Your task to perform on an android device: What's on my calendar today? Image 0: 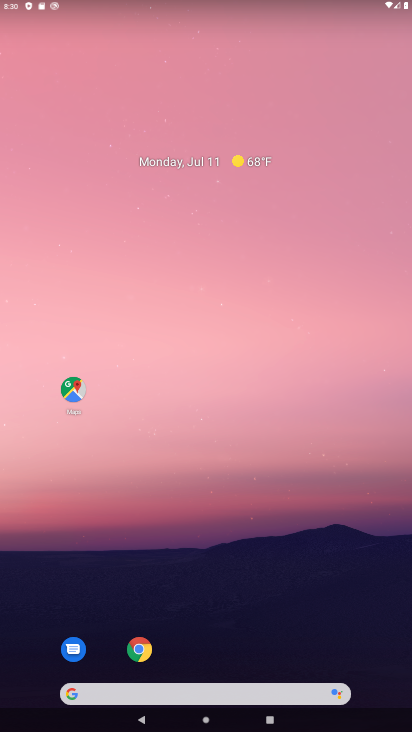
Step 0: drag from (271, 378) to (238, 122)
Your task to perform on an android device: What's on my calendar today? Image 1: 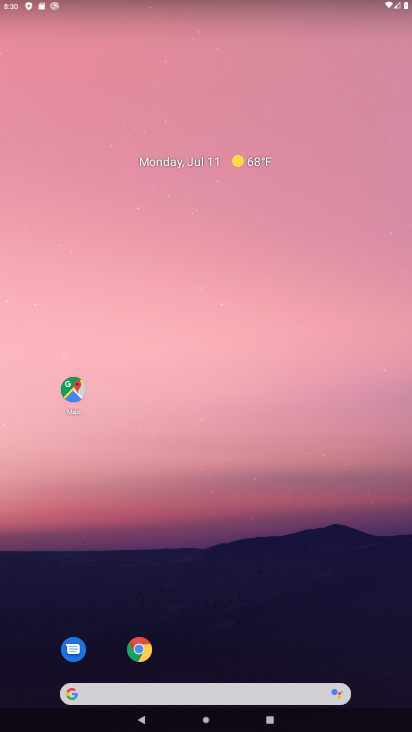
Step 1: drag from (266, 601) to (233, 103)
Your task to perform on an android device: What's on my calendar today? Image 2: 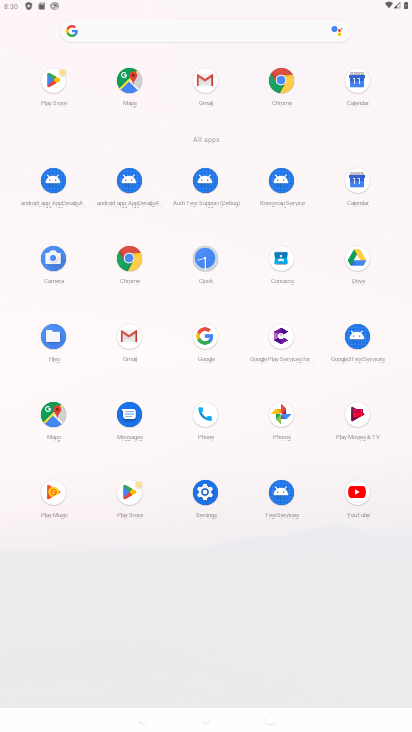
Step 2: click (355, 181)
Your task to perform on an android device: What's on my calendar today? Image 3: 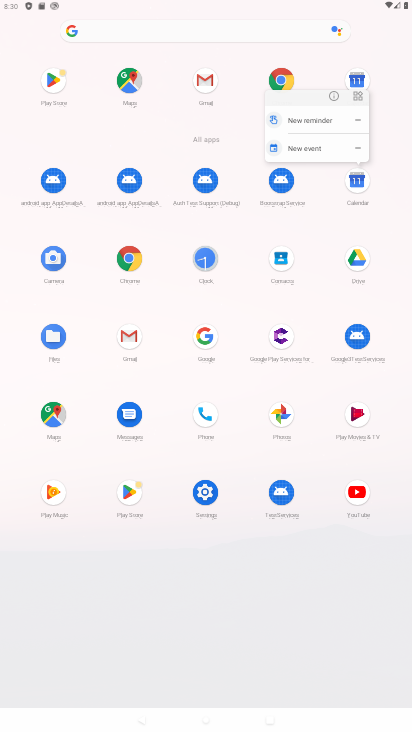
Step 3: click (356, 180)
Your task to perform on an android device: What's on my calendar today? Image 4: 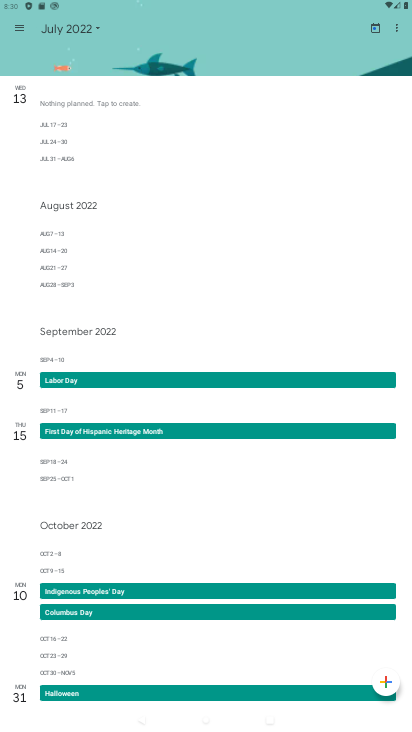
Step 4: drag from (223, 449) to (221, 144)
Your task to perform on an android device: What's on my calendar today? Image 5: 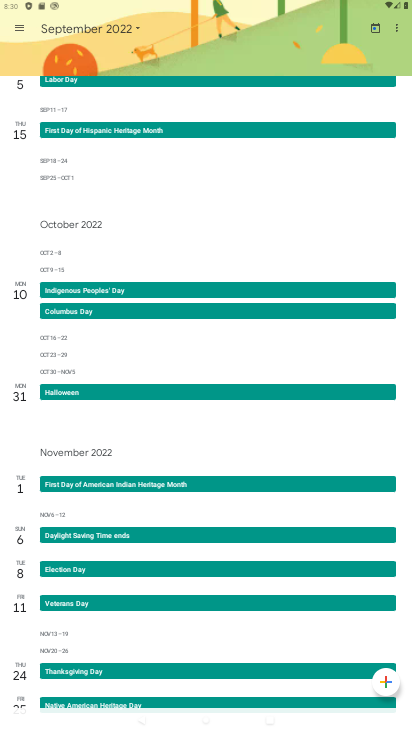
Step 5: drag from (214, 99) to (216, 461)
Your task to perform on an android device: What's on my calendar today? Image 6: 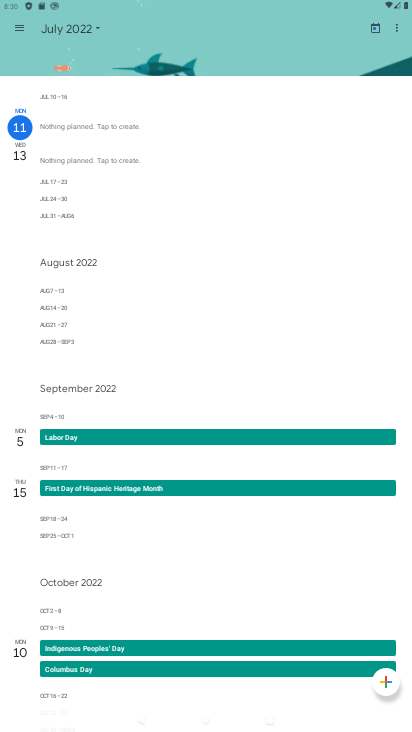
Step 6: drag from (97, 113) to (106, 394)
Your task to perform on an android device: What's on my calendar today? Image 7: 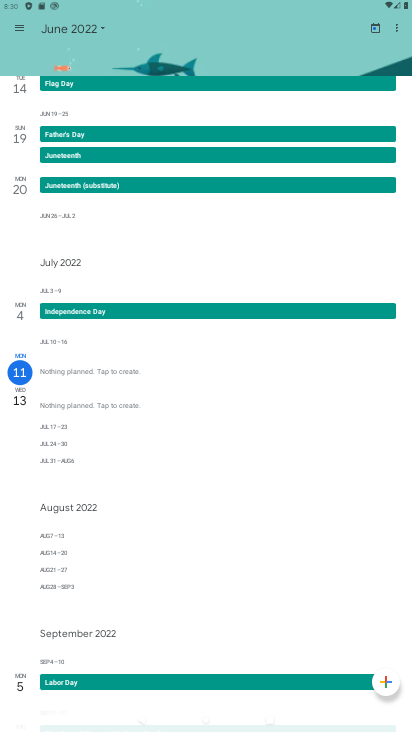
Step 7: drag from (63, 112) to (126, 473)
Your task to perform on an android device: What's on my calendar today? Image 8: 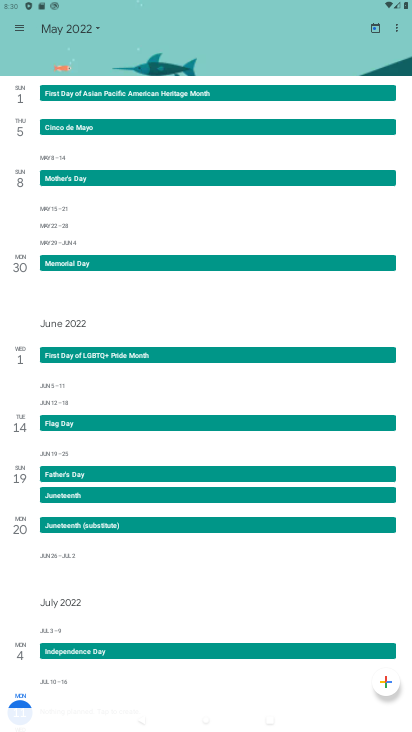
Step 8: drag from (132, 210) to (257, 573)
Your task to perform on an android device: What's on my calendar today? Image 9: 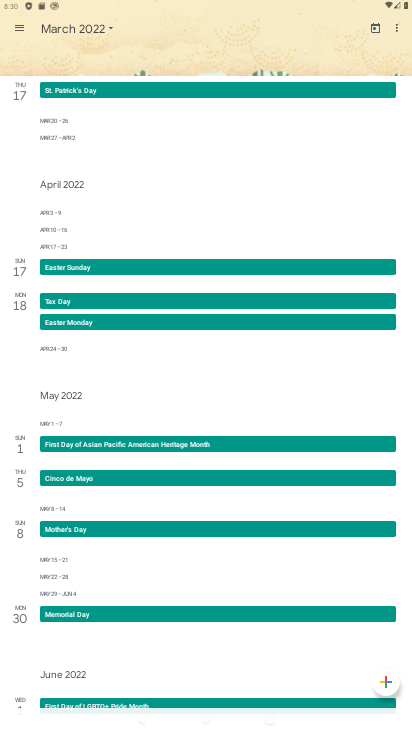
Step 9: drag from (180, 186) to (222, 561)
Your task to perform on an android device: What's on my calendar today? Image 10: 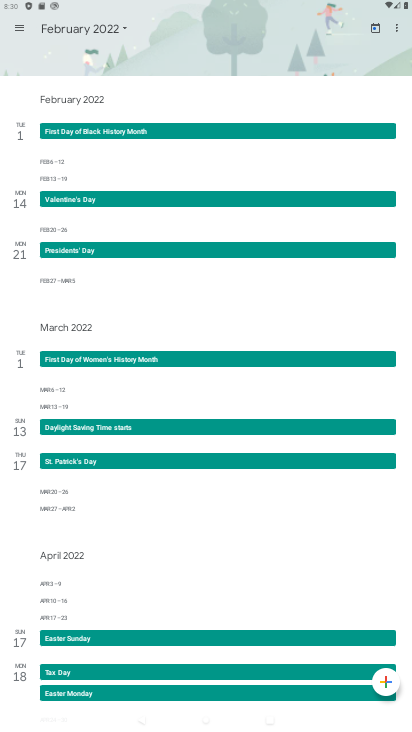
Step 10: drag from (138, 370) to (156, 519)
Your task to perform on an android device: What's on my calendar today? Image 11: 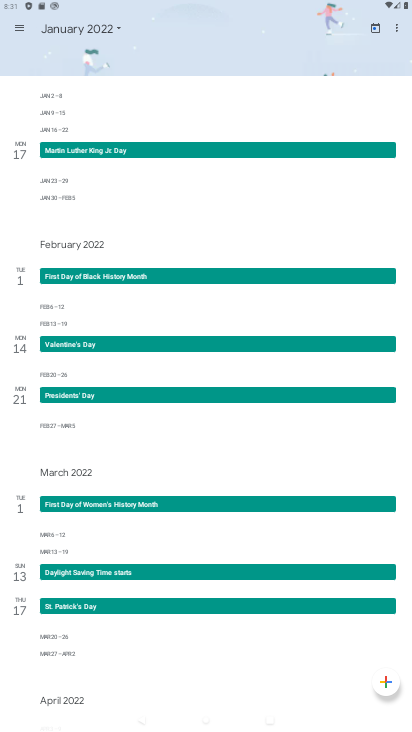
Step 11: drag from (143, 180) to (190, 530)
Your task to perform on an android device: What's on my calendar today? Image 12: 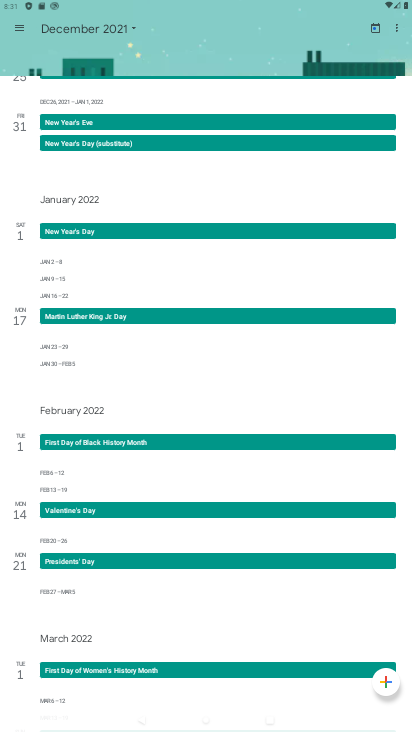
Step 12: drag from (142, 165) to (164, 609)
Your task to perform on an android device: What's on my calendar today? Image 13: 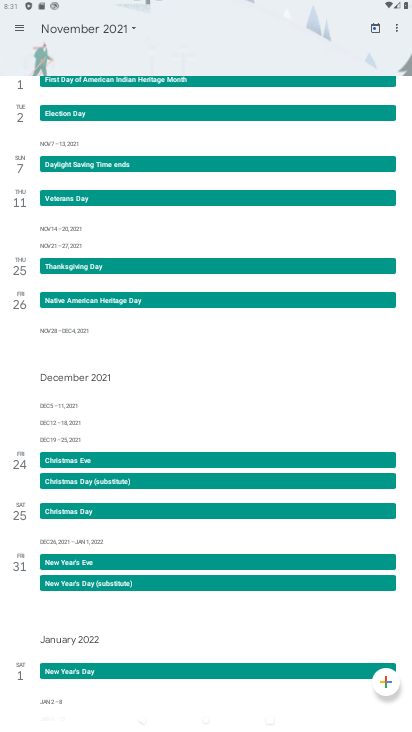
Step 13: drag from (44, 131) to (180, 589)
Your task to perform on an android device: What's on my calendar today? Image 14: 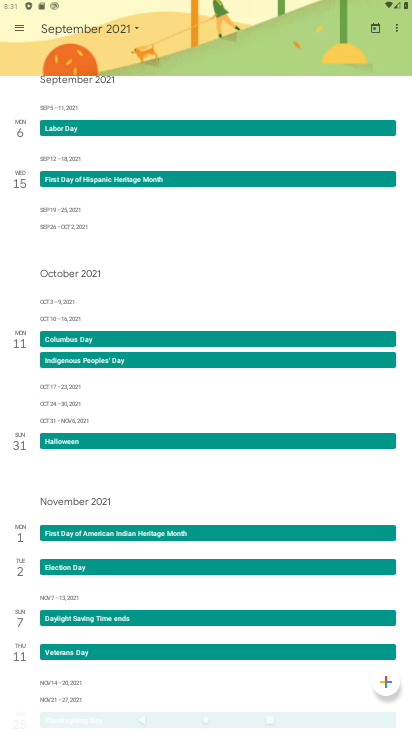
Step 14: drag from (144, 497) to (159, 24)
Your task to perform on an android device: What's on my calendar today? Image 15: 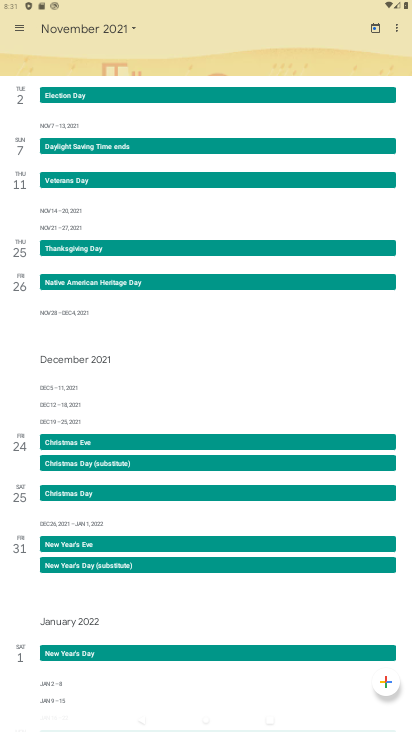
Step 15: drag from (196, 423) to (196, 167)
Your task to perform on an android device: What's on my calendar today? Image 16: 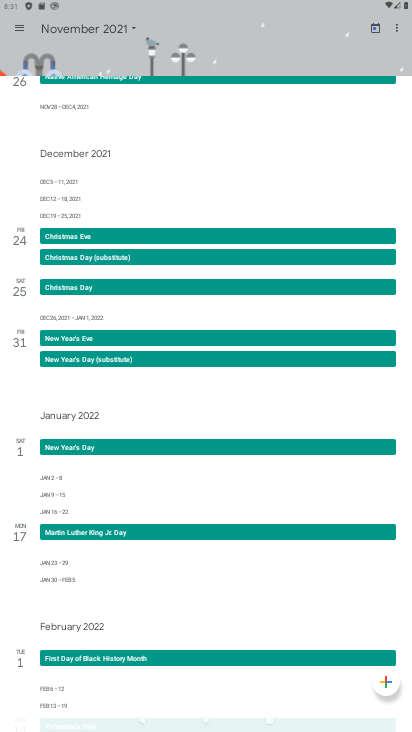
Step 16: drag from (160, 452) to (157, 123)
Your task to perform on an android device: What's on my calendar today? Image 17: 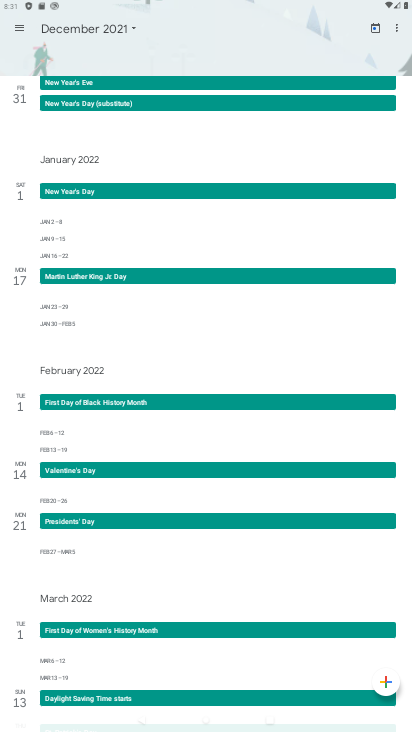
Step 17: drag from (138, 395) to (112, 53)
Your task to perform on an android device: What's on my calendar today? Image 18: 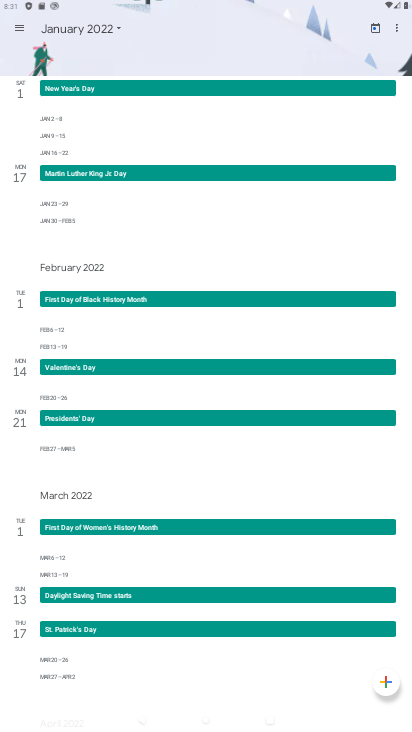
Step 18: drag from (127, 445) to (123, 86)
Your task to perform on an android device: What's on my calendar today? Image 19: 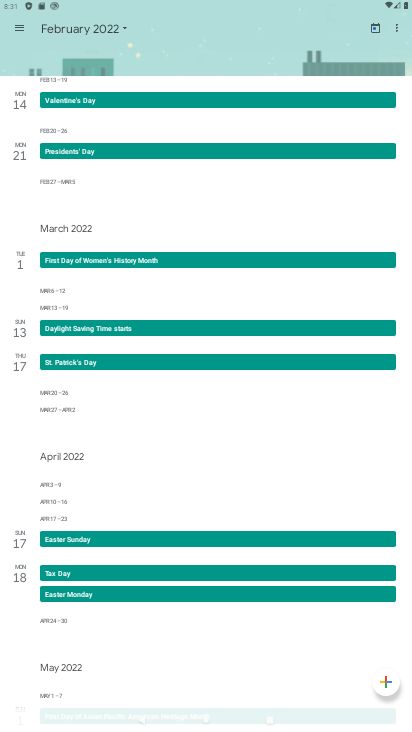
Step 19: drag from (188, 589) to (188, 178)
Your task to perform on an android device: What's on my calendar today? Image 20: 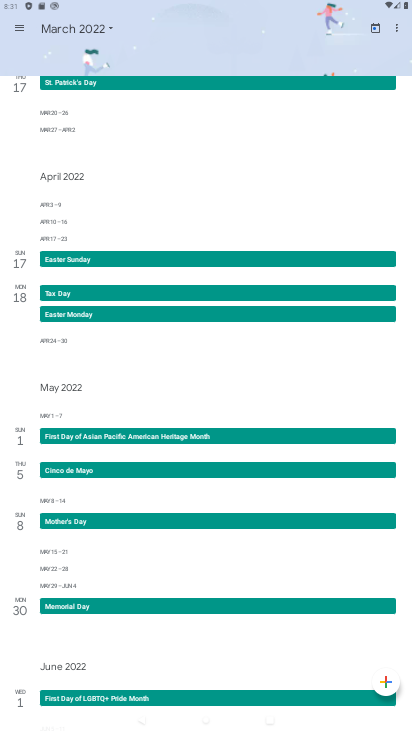
Step 20: drag from (226, 497) to (226, 128)
Your task to perform on an android device: What's on my calendar today? Image 21: 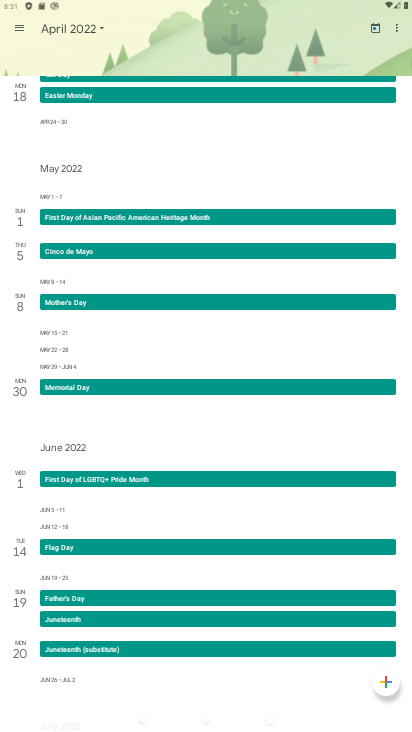
Step 21: drag from (242, 400) to (234, 204)
Your task to perform on an android device: What's on my calendar today? Image 22: 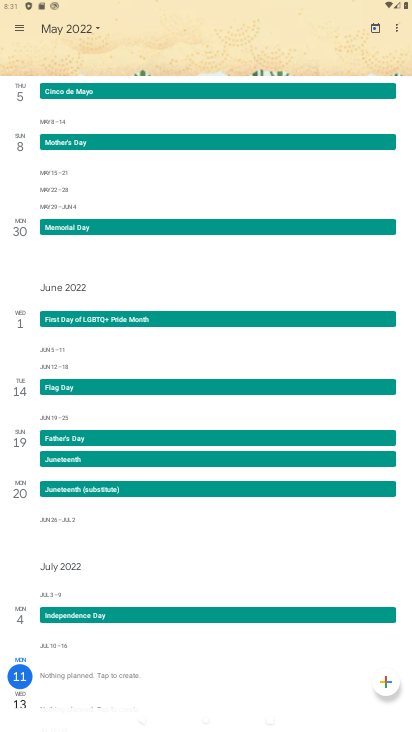
Step 22: drag from (261, 375) to (243, 160)
Your task to perform on an android device: What's on my calendar today? Image 23: 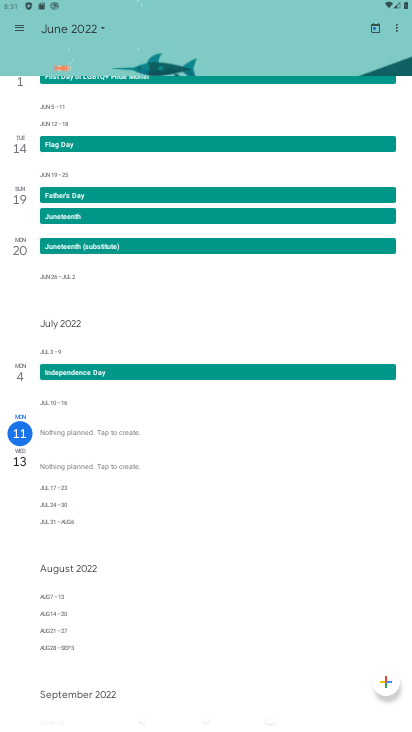
Step 23: drag from (209, 399) to (189, 223)
Your task to perform on an android device: What's on my calendar today? Image 24: 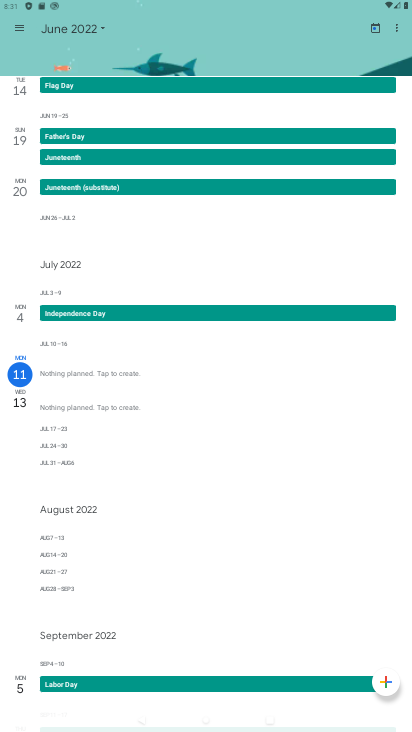
Step 24: drag from (161, 404) to (161, 124)
Your task to perform on an android device: What's on my calendar today? Image 25: 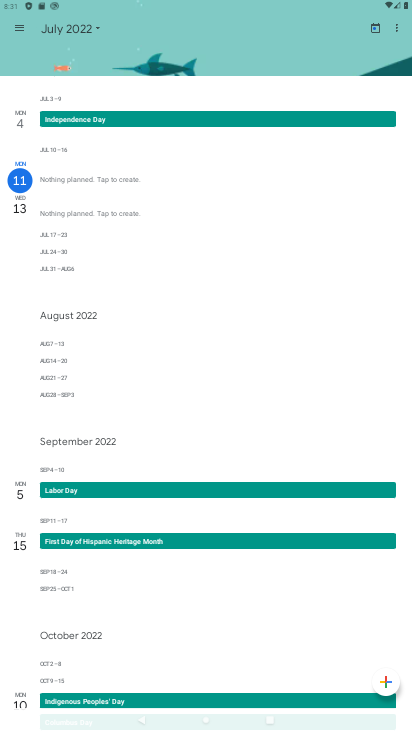
Step 25: click (97, 23)
Your task to perform on an android device: What's on my calendar today? Image 26: 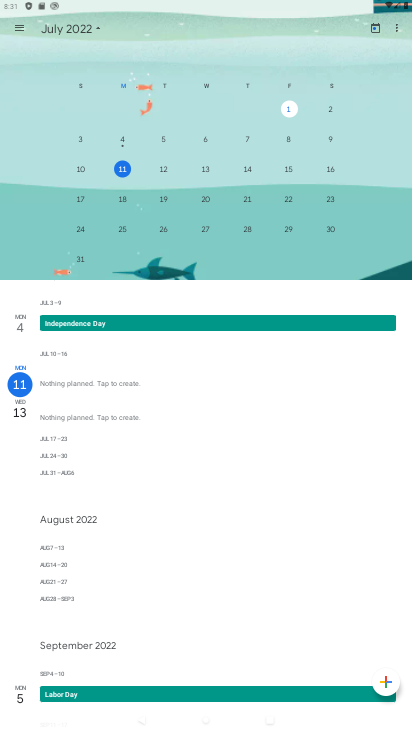
Step 26: click (165, 170)
Your task to perform on an android device: What's on my calendar today? Image 27: 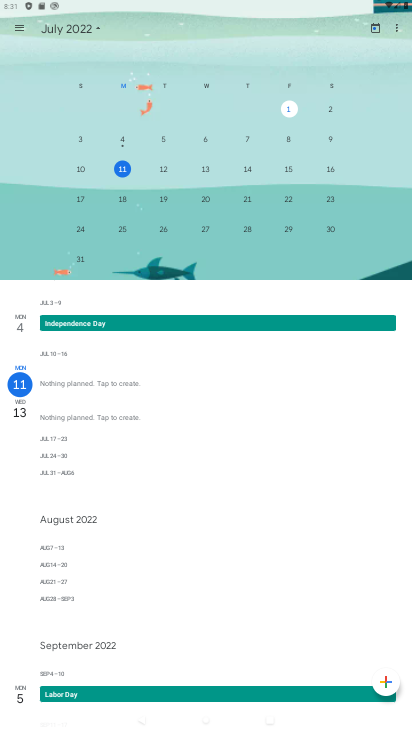
Step 27: click (165, 170)
Your task to perform on an android device: What's on my calendar today? Image 28: 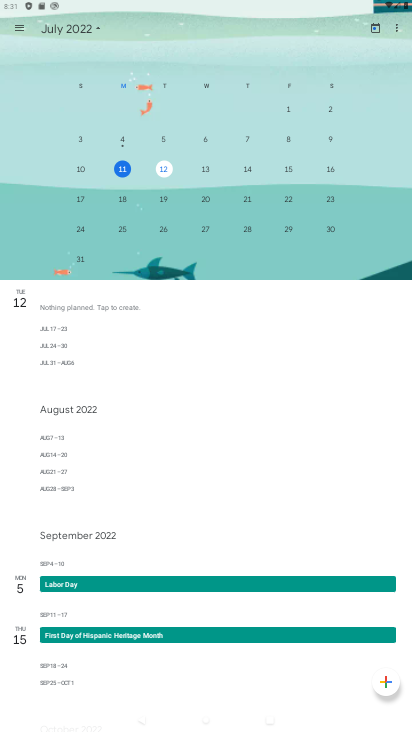
Step 28: task complete